Your task to perform on an android device: toggle pop-ups in chrome Image 0: 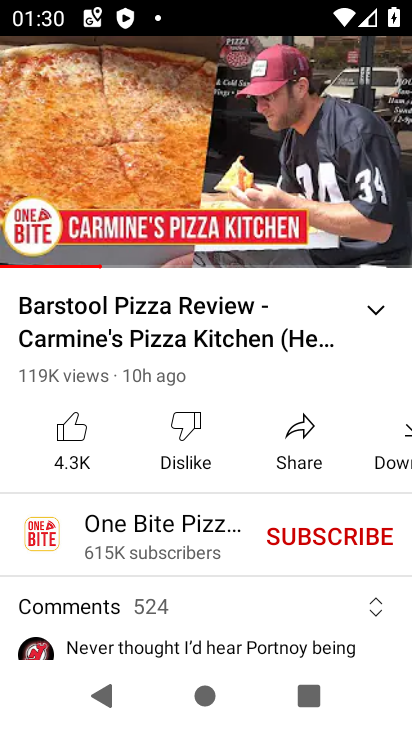
Step 0: press home button
Your task to perform on an android device: toggle pop-ups in chrome Image 1: 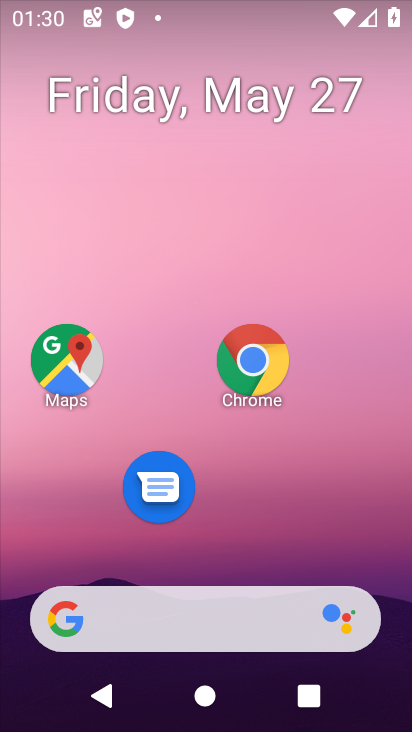
Step 1: click (254, 364)
Your task to perform on an android device: toggle pop-ups in chrome Image 2: 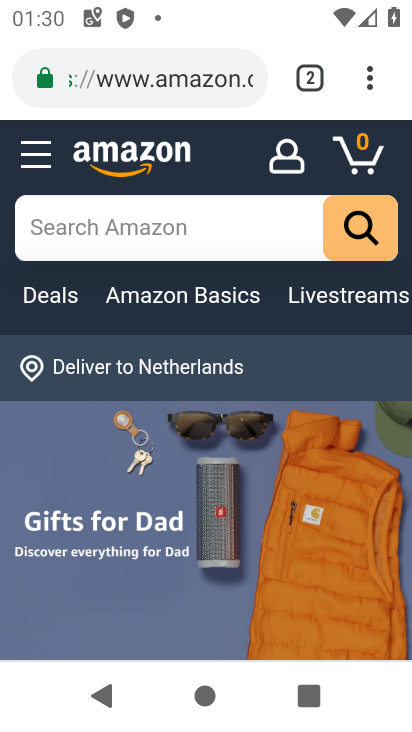
Step 2: click (366, 71)
Your task to perform on an android device: toggle pop-ups in chrome Image 3: 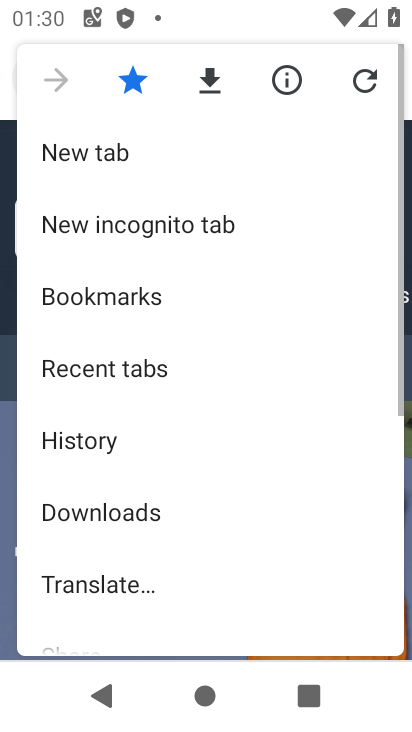
Step 3: drag from (176, 551) to (221, 193)
Your task to perform on an android device: toggle pop-ups in chrome Image 4: 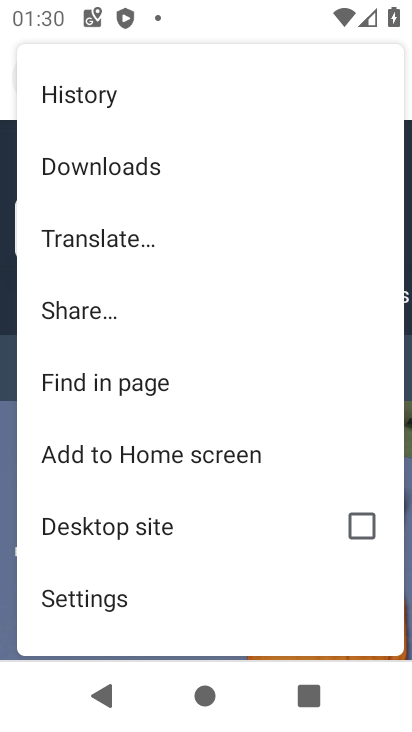
Step 4: click (126, 591)
Your task to perform on an android device: toggle pop-ups in chrome Image 5: 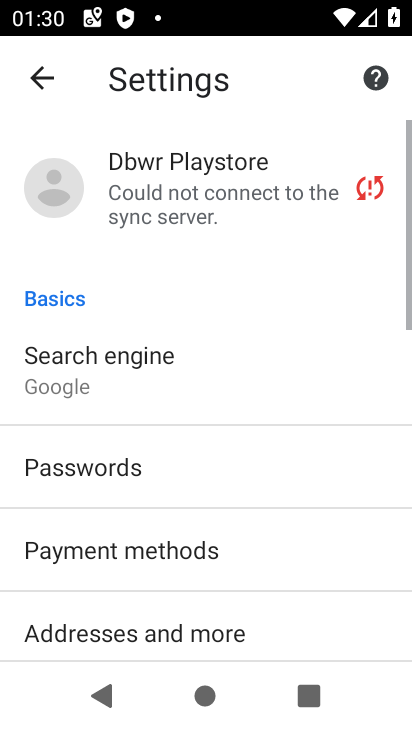
Step 5: drag from (200, 560) to (215, 137)
Your task to perform on an android device: toggle pop-ups in chrome Image 6: 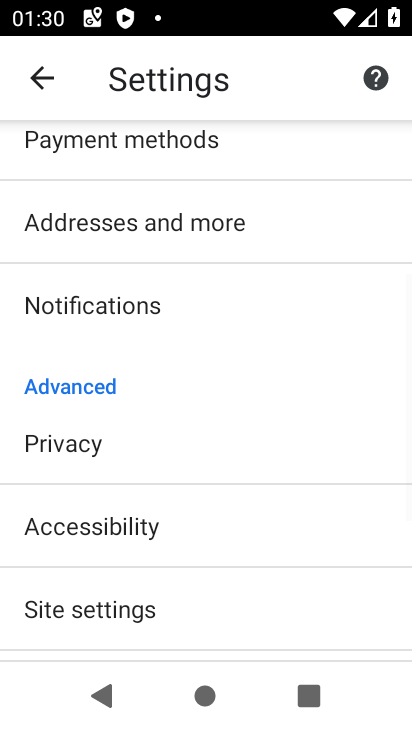
Step 6: click (157, 597)
Your task to perform on an android device: toggle pop-ups in chrome Image 7: 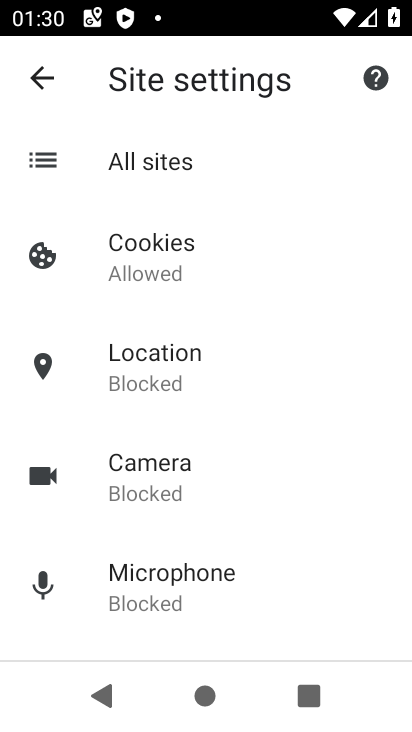
Step 7: drag from (219, 500) to (229, 226)
Your task to perform on an android device: toggle pop-ups in chrome Image 8: 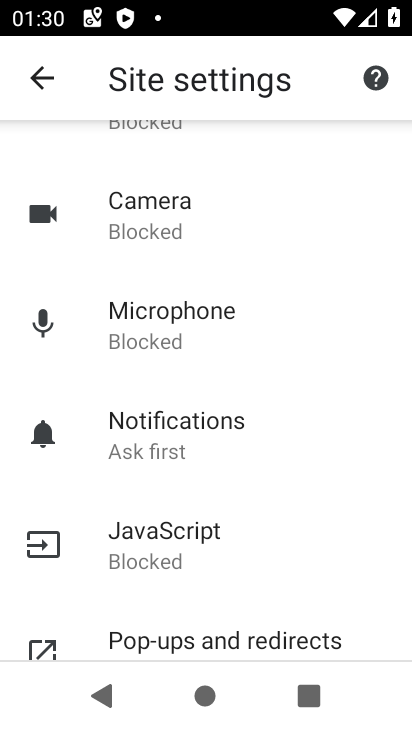
Step 8: click (180, 637)
Your task to perform on an android device: toggle pop-ups in chrome Image 9: 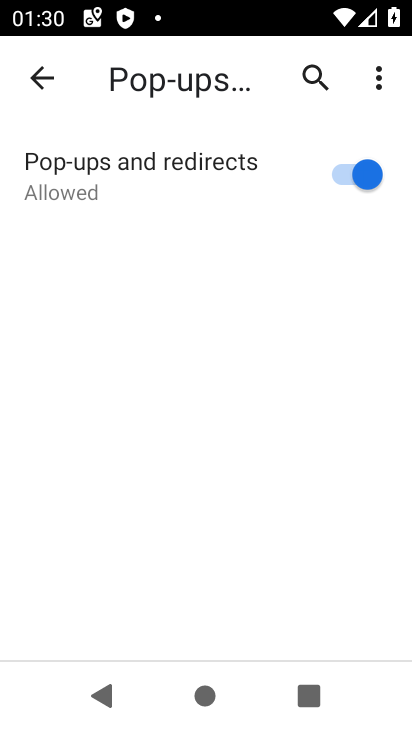
Step 9: click (358, 171)
Your task to perform on an android device: toggle pop-ups in chrome Image 10: 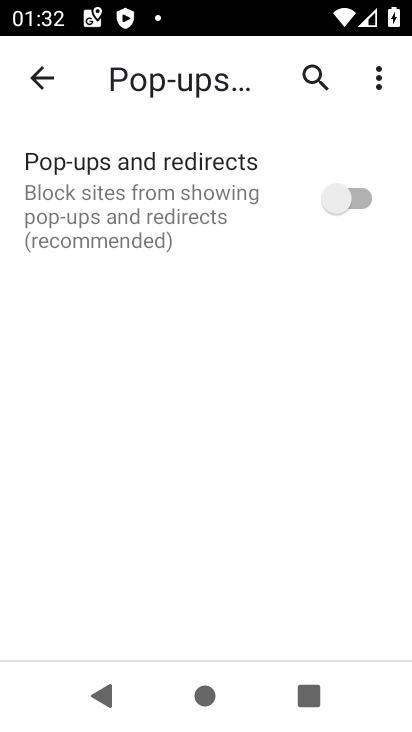
Step 10: task complete